Your task to perform on an android device: Go to calendar. Show me events next week Image 0: 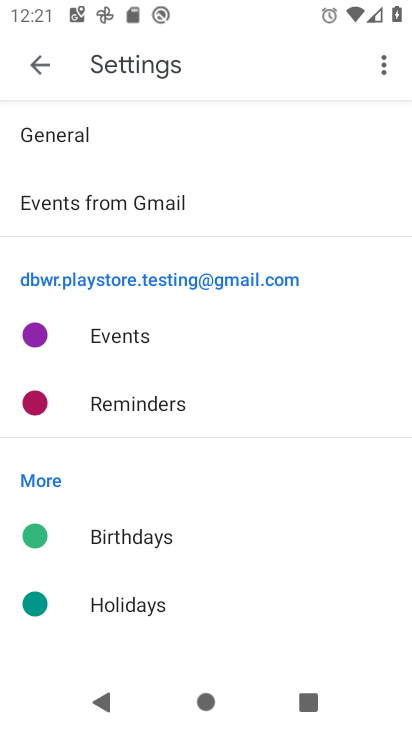
Step 0: press home button
Your task to perform on an android device: Go to calendar. Show me events next week Image 1: 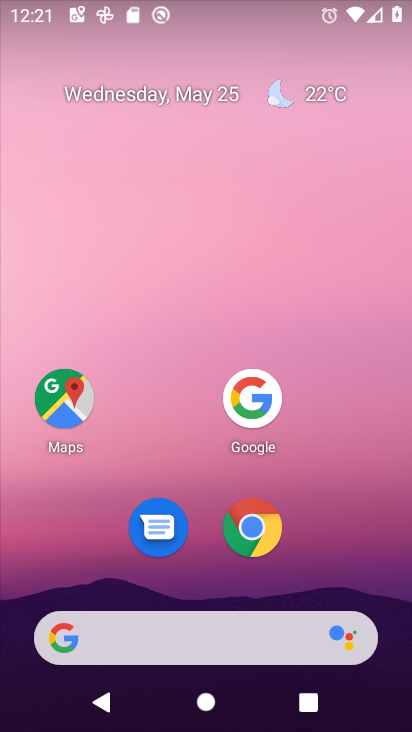
Step 1: drag from (121, 633) to (309, 84)
Your task to perform on an android device: Go to calendar. Show me events next week Image 2: 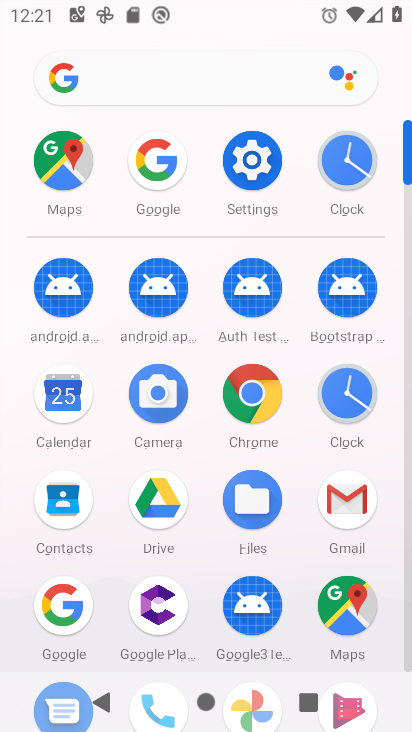
Step 2: click (50, 397)
Your task to perform on an android device: Go to calendar. Show me events next week Image 3: 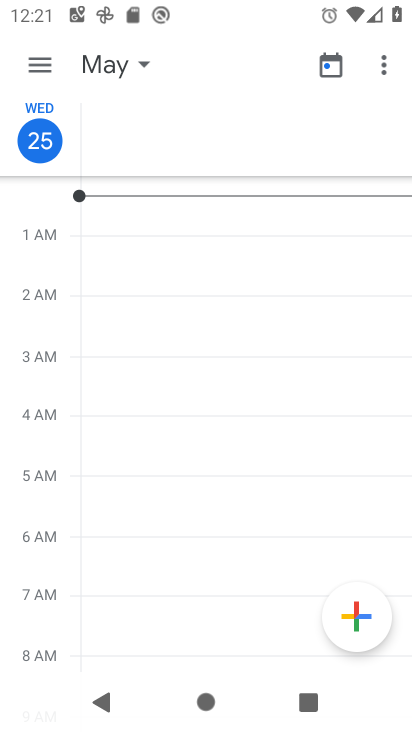
Step 3: click (111, 61)
Your task to perform on an android device: Go to calendar. Show me events next week Image 4: 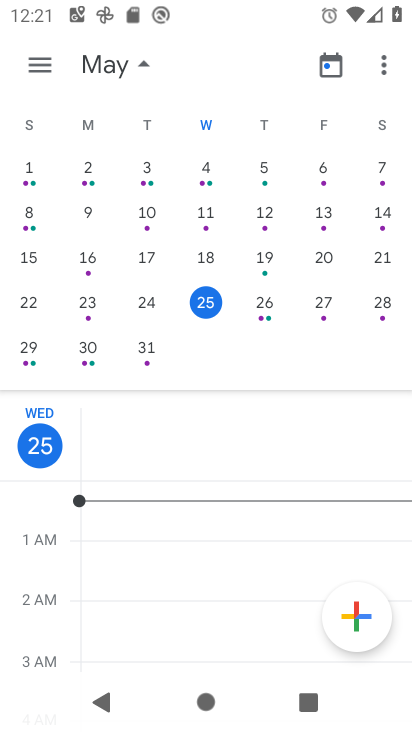
Step 4: drag from (375, 232) to (29, 216)
Your task to perform on an android device: Go to calendar. Show me events next week Image 5: 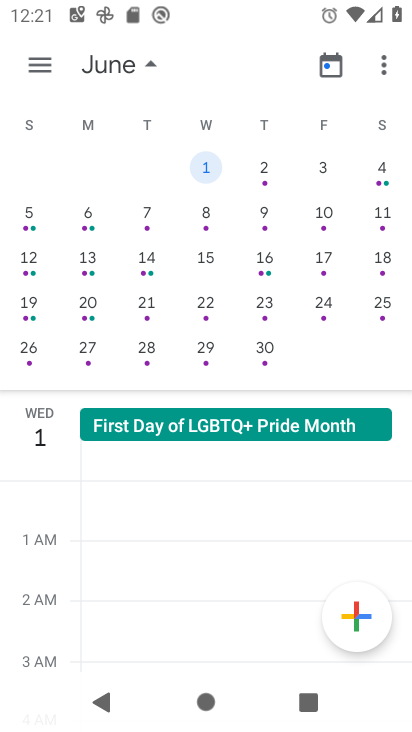
Step 5: drag from (90, 272) to (401, 270)
Your task to perform on an android device: Go to calendar. Show me events next week Image 6: 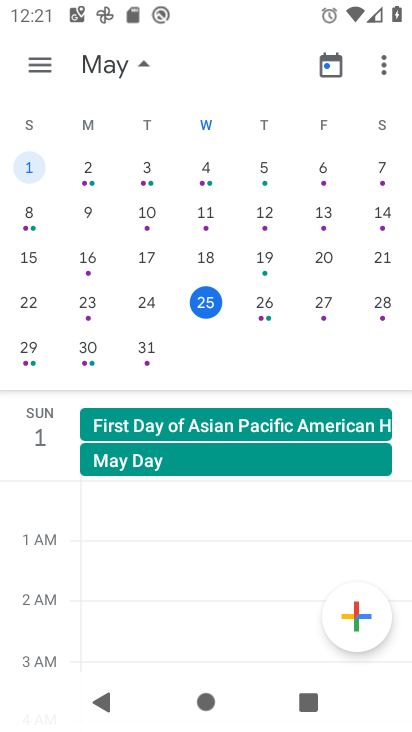
Step 6: click (27, 352)
Your task to perform on an android device: Go to calendar. Show me events next week Image 7: 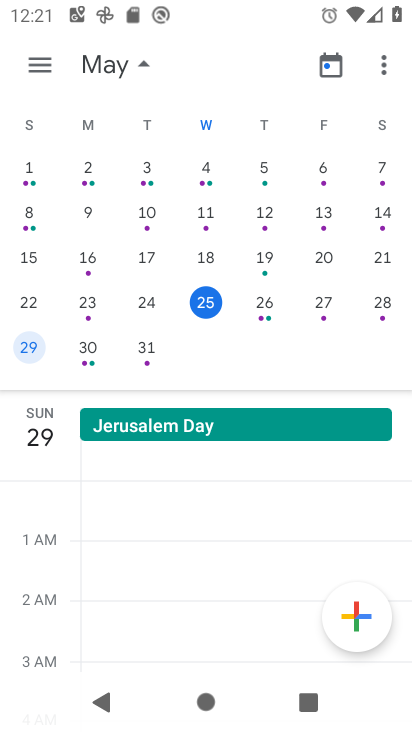
Step 7: click (112, 63)
Your task to perform on an android device: Go to calendar. Show me events next week Image 8: 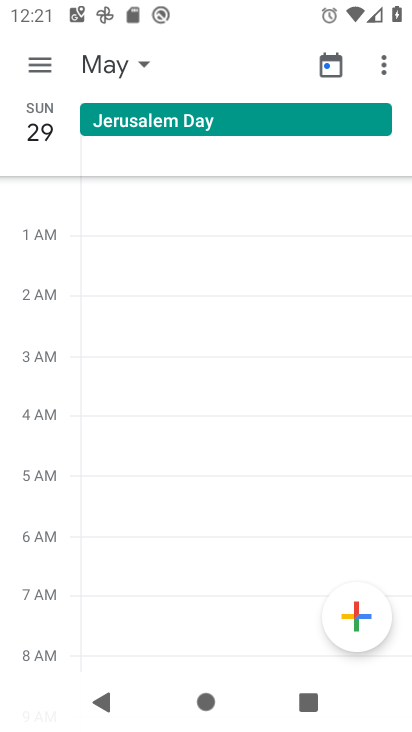
Step 8: click (43, 65)
Your task to perform on an android device: Go to calendar. Show me events next week Image 9: 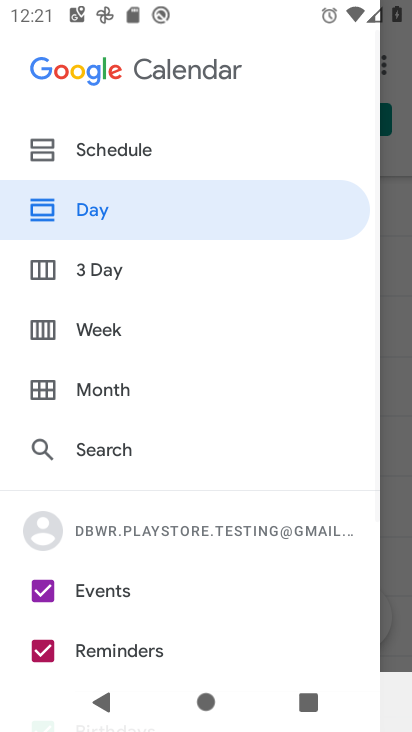
Step 9: click (98, 332)
Your task to perform on an android device: Go to calendar. Show me events next week Image 10: 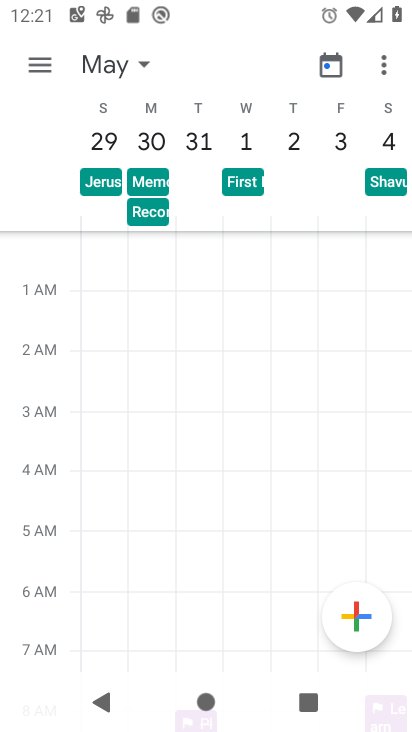
Step 10: click (48, 61)
Your task to perform on an android device: Go to calendar. Show me events next week Image 11: 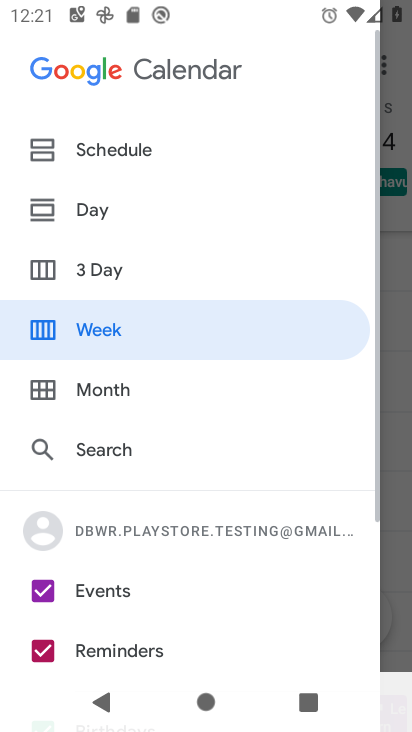
Step 11: click (109, 150)
Your task to perform on an android device: Go to calendar. Show me events next week Image 12: 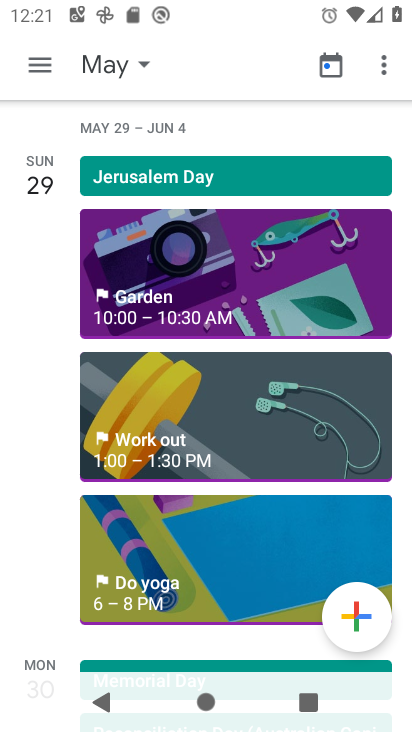
Step 12: click (199, 285)
Your task to perform on an android device: Go to calendar. Show me events next week Image 13: 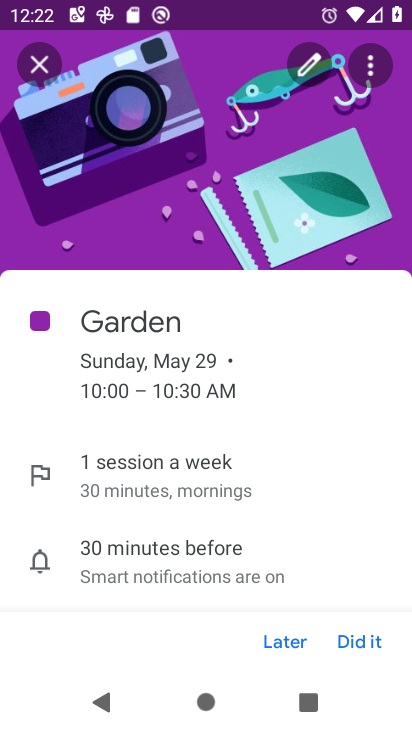
Step 13: task complete